Your task to perform on an android device: Find coffee shops on Maps Image 0: 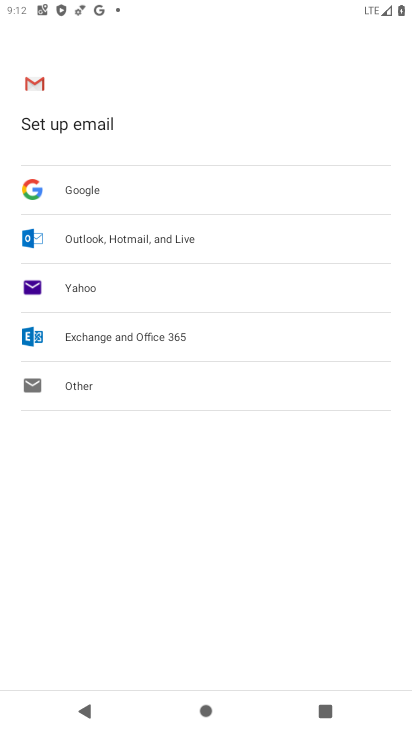
Step 0: press home button
Your task to perform on an android device: Find coffee shops on Maps Image 1: 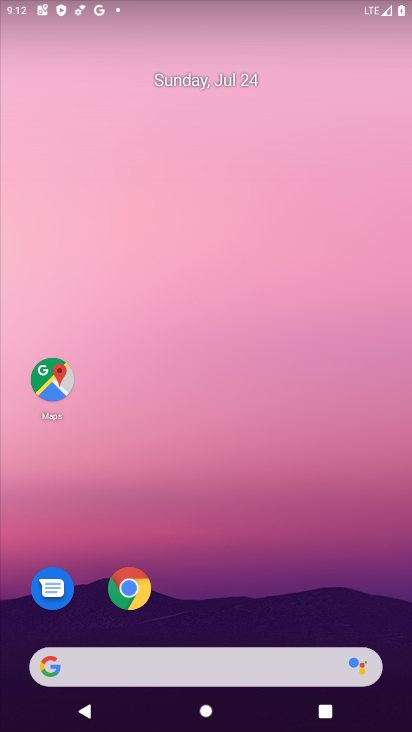
Step 1: click (46, 364)
Your task to perform on an android device: Find coffee shops on Maps Image 2: 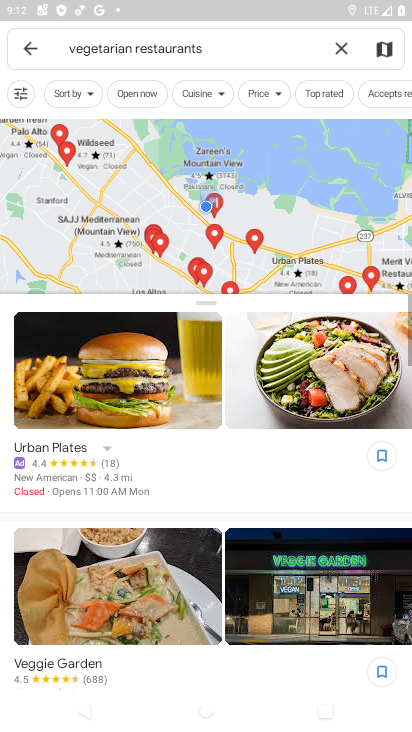
Step 2: click (334, 43)
Your task to perform on an android device: Find coffee shops on Maps Image 3: 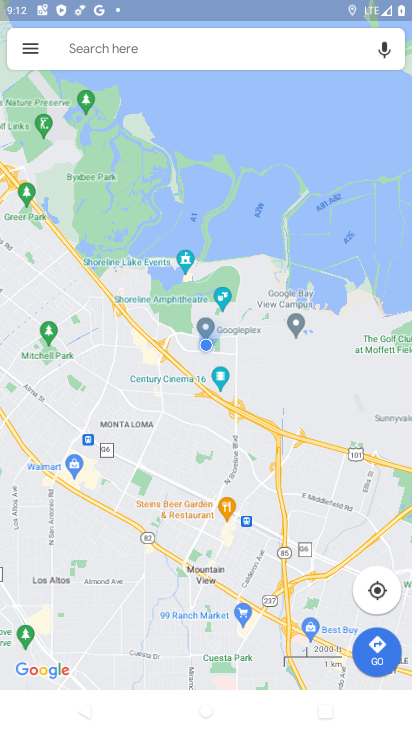
Step 3: click (144, 39)
Your task to perform on an android device: Find coffee shops on Maps Image 4: 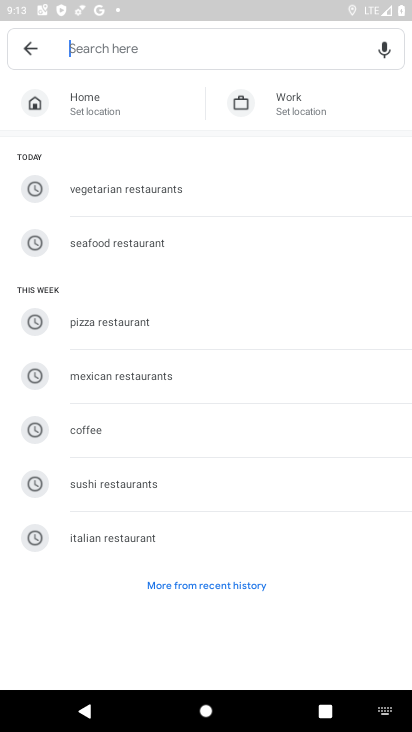
Step 4: type "coffee shops"
Your task to perform on an android device: Find coffee shops on Maps Image 5: 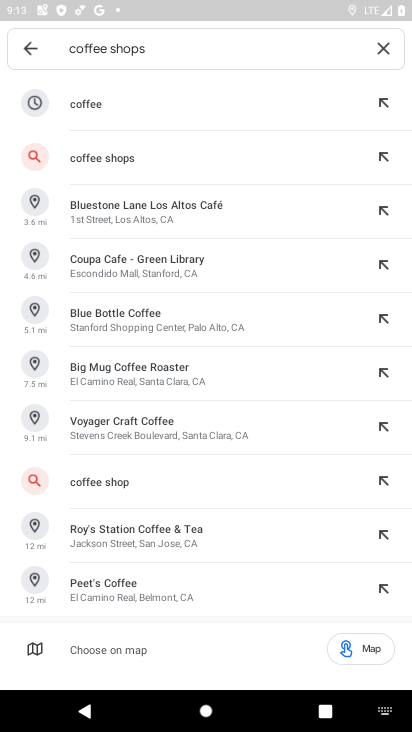
Step 5: click (106, 161)
Your task to perform on an android device: Find coffee shops on Maps Image 6: 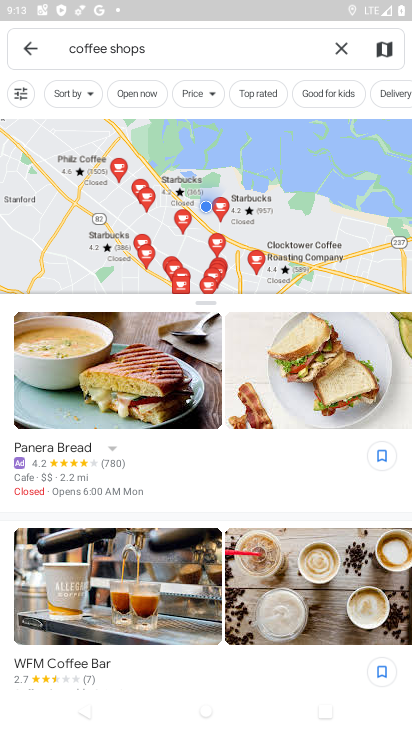
Step 6: task complete